Your task to perform on an android device: Search for macbook air on amazon.com, select the first entry, and add it to the cart. Image 0: 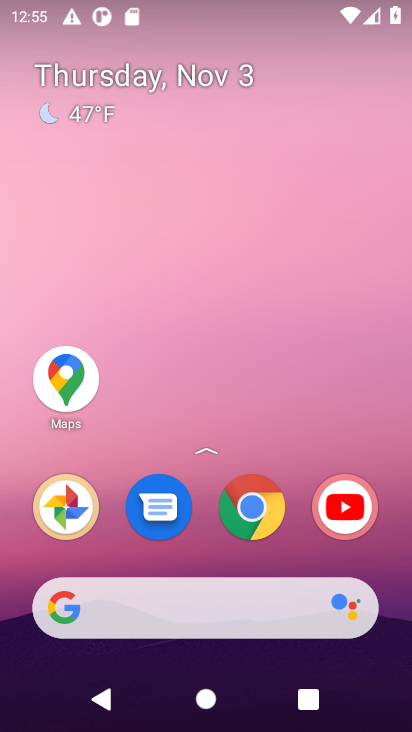
Step 0: click (173, 606)
Your task to perform on an android device: Search for macbook air on amazon.com, select the first entry, and add it to the cart. Image 1: 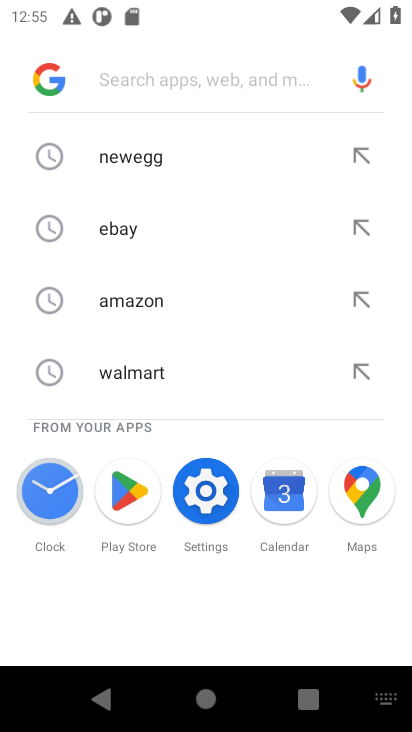
Step 1: click (217, 316)
Your task to perform on an android device: Search for macbook air on amazon.com, select the first entry, and add it to the cart. Image 2: 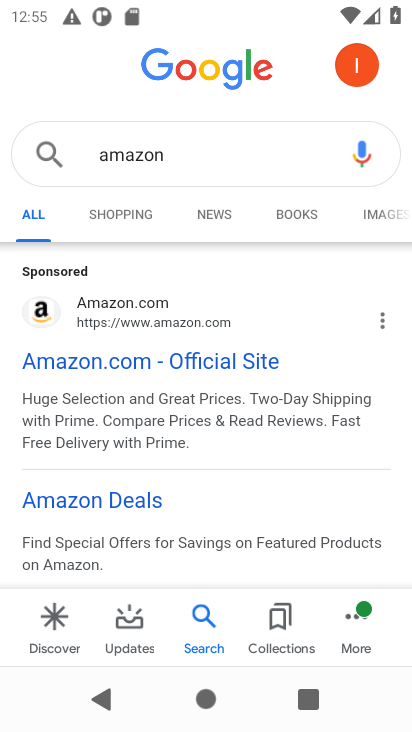
Step 2: click (113, 373)
Your task to perform on an android device: Search for macbook air on amazon.com, select the first entry, and add it to the cart. Image 3: 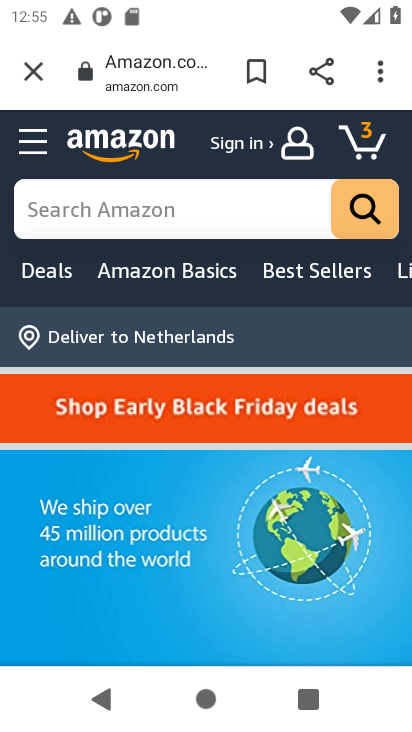
Step 3: click (138, 234)
Your task to perform on an android device: Search for macbook air on amazon.com, select the first entry, and add it to the cart. Image 4: 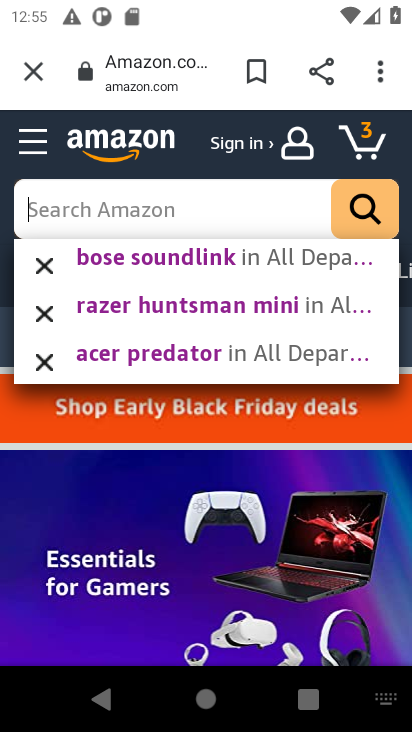
Step 4: click (373, 135)
Your task to perform on an android device: Search for macbook air on amazon.com, select the first entry, and add it to the cart. Image 5: 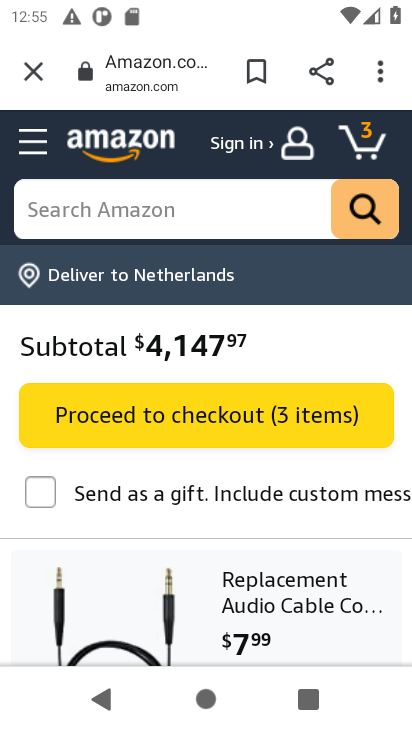
Step 5: click (139, 202)
Your task to perform on an android device: Search for macbook air on amazon.com, select the first entry, and add it to the cart. Image 6: 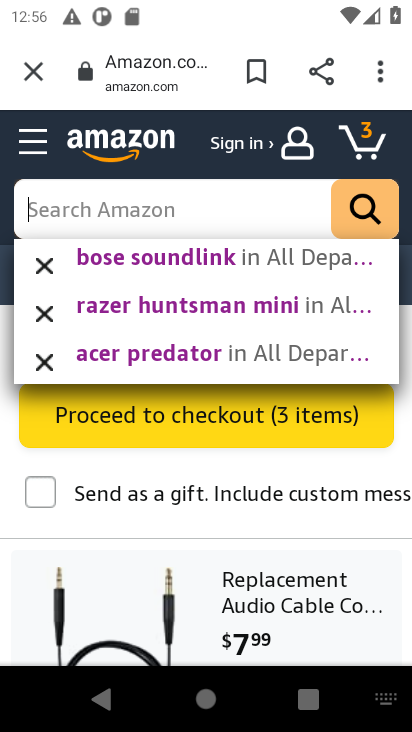
Step 6: type "macbook air"
Your task to perform on an android device: Search for macbook air on amazon.com, select the first entry, and add it to the cart. Image 7: 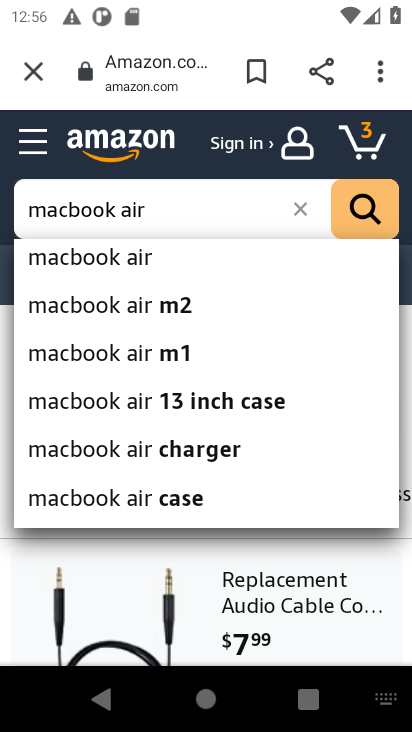
Step 7: click (161, 250)
Your task to perform on an android device: Search for macbook air on amazon.com, select the first entry, and add it to the cart. Image 8: 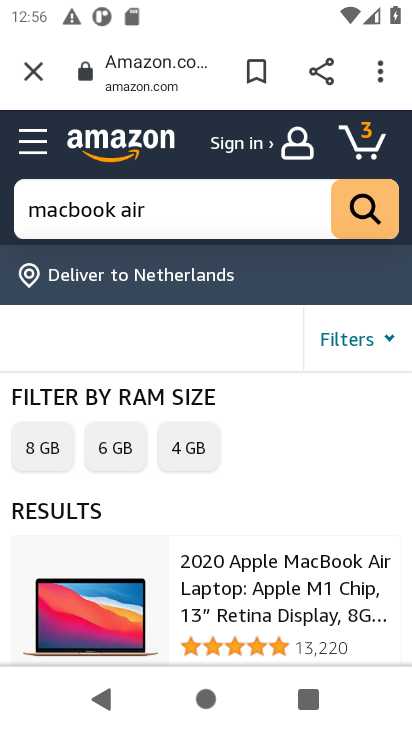
Step 8: click (29, 431)
Your task to perform on an android device: Search for macbook air on amazon.com, select the first entry, and add it to the cart. Image 9: 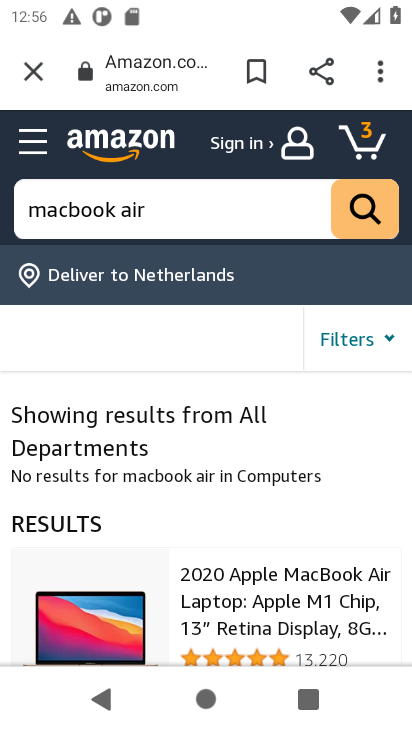
Step 9: click (311, 588)
Your task to perform on an android device: Search for macbook air on amazon.com, select the first entry, and add it to the cart. Image 10: 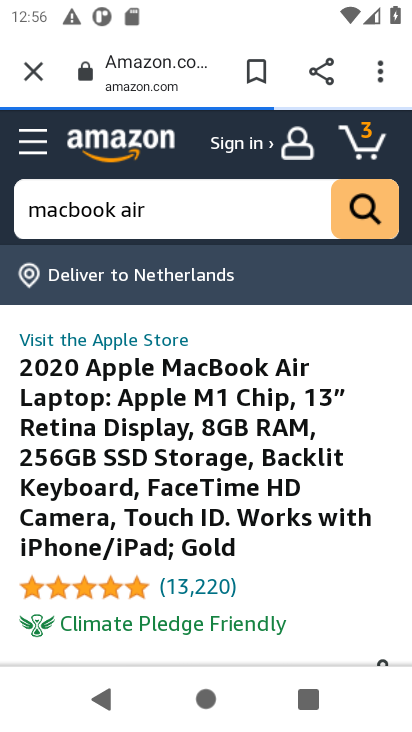
Step 10: drag from (290, 602) to (399, 183)
Your task to perform on an android device: Search for macbook air on amazon.com, select the first entry, and add it to the cart. Image 11: 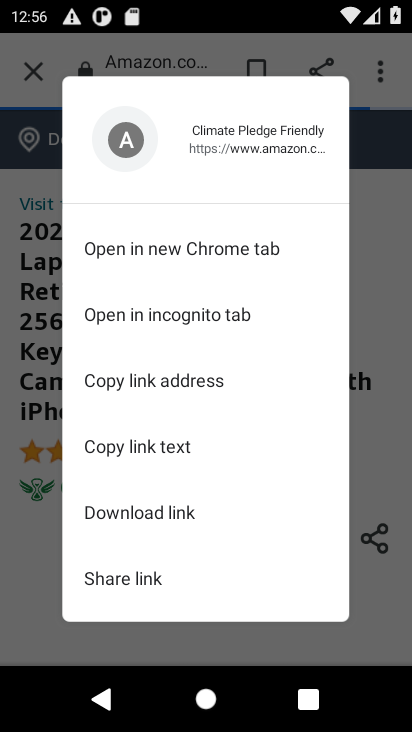
Step 11: click (358, 403)
Your task to perform on an android device: Search for macbook air on amazon.com, select the first entry, and add it to the cart. Image 12: 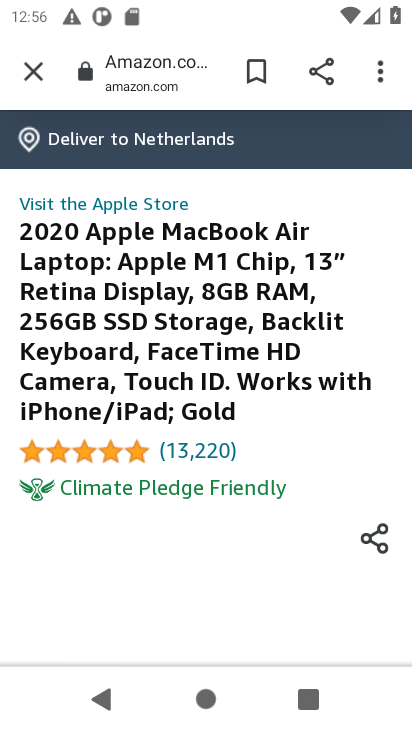
Step 12: drag from (281, 574) to (406, 103)
Your task to perform on an android device: Search for macbook air on amazon.com, select the first entry, and add it to the cart. Image 13: 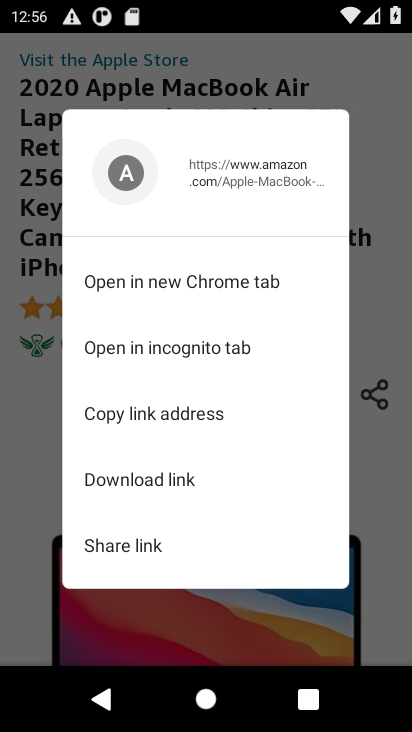
Step 13: click (372, 473)
Your task to perform on an android device: Search for macbook air on amazon.com, select the first entry, and add it to the cart. Image 14: 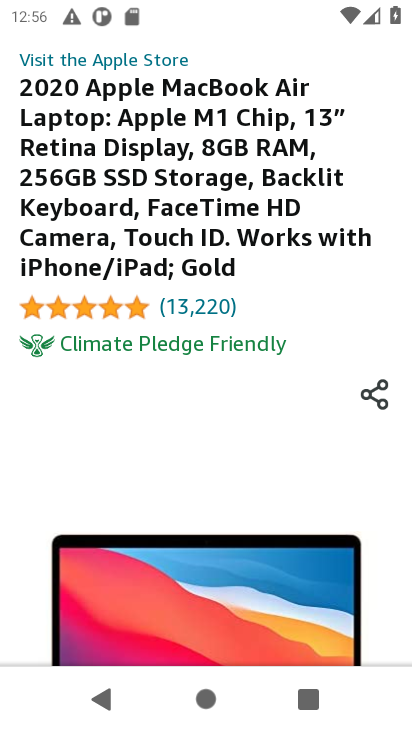
Step 14: drag from (373, 569) to (368, 275)
Your task to perform on an android device: Search for macbook air on amazon.com, select the first entry, and add it to the cart. Image 15: 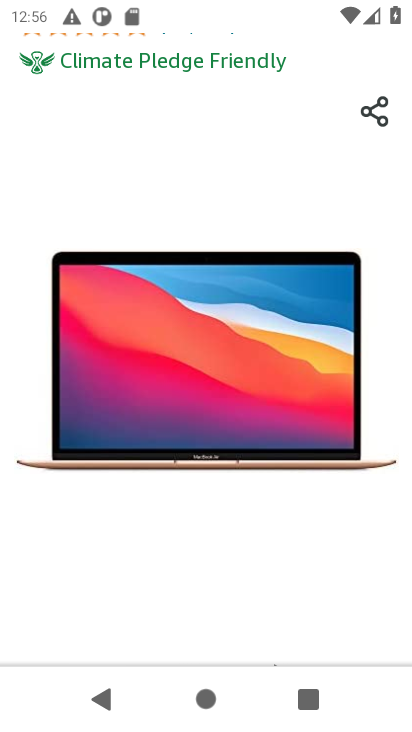
Step 15: drag from (256, 560) to (267, 167)
Your task to perform on an android device: Search for macbook air on amazon.com, select the first entry, and add it to the cart. Image 16: 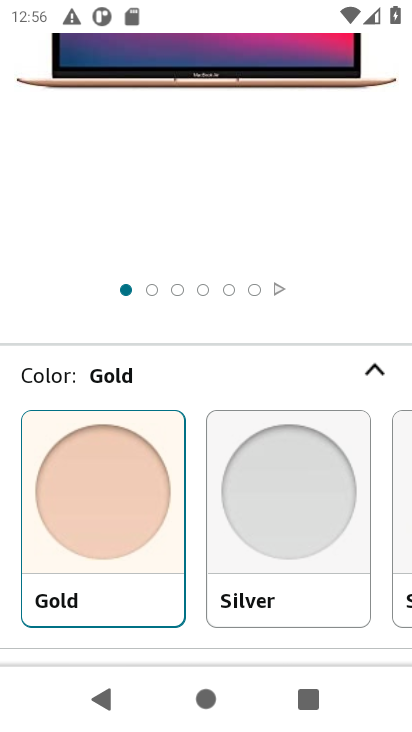
Step 16: drag from (211, 330) to (240, 22)
Your task to perform on an android device: Search for macbook air on amazon.com, select the first entry, and add it to the cart. Image 17: 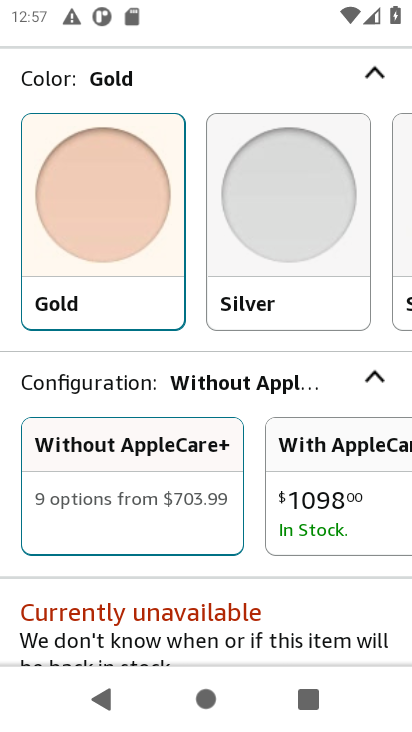
Step 17: press home button
Your task to perform on an android device: Search for macbook air on amazon.com, select the first entry, and add it to the cart. Image 18: 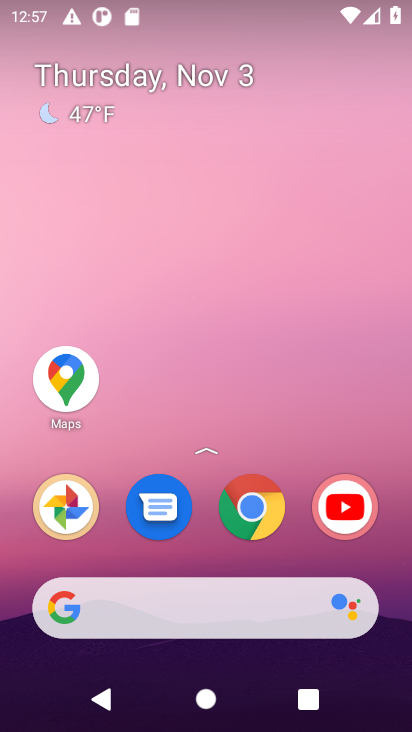
Step 18: click (171, 600)
Your task to perform on an android device: Search for macbook air on amazon.com, select the first entry, and add it to the cart. Image 19: 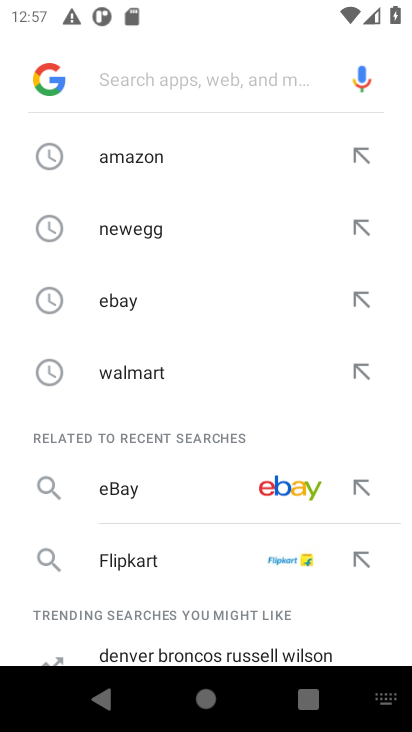
Step 19: click (105, 175)
Your task to perform on an android device: Search for macbook air on amazon.com, select the first entry, and add it to the cart. Image 20: 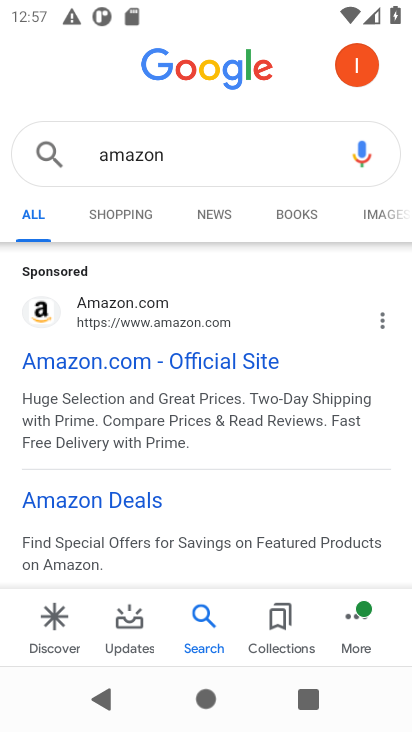
Step 20: click (143, 365)
Your task to perform on an android device: Search for macbook air on amazon.com, select the first entry, and add it to the cart. Image 21: 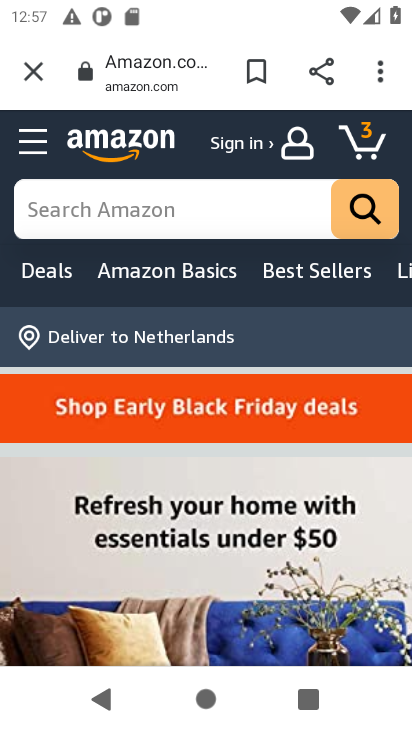
Step 21: click (159, 228)
Your task to perform on an android device: Search for macbook air on amazon.com, select the first entry, and add it to the cart. Image 22: 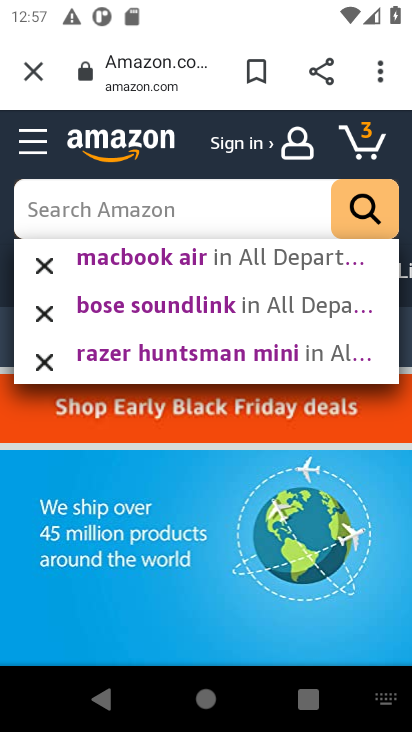
Step 22: click (238, 256)
Your task to perform on an android device: Search for macbook air on amazon.com, select the first entry, and add it to the cart. Image 23: 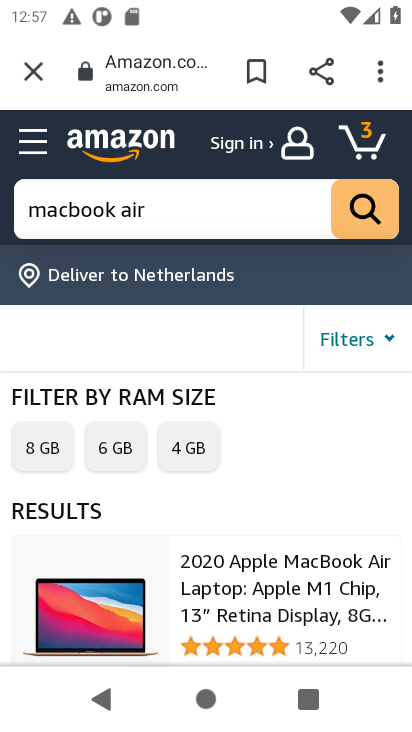
Step 23: click (249, 580)
Your task to perform on an android device: Search for macbook air on amazon.com, select the first entry, and add it to the cart. Image 24: 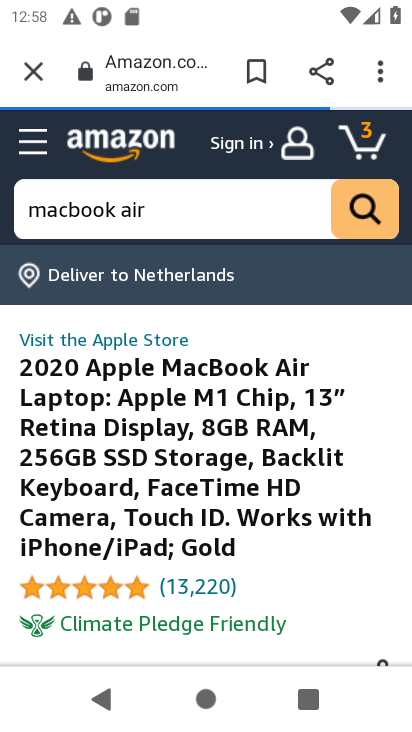
Step 24: task complete